Your task to perform on an android device: turn on the 24-hour format for clock Image 0: 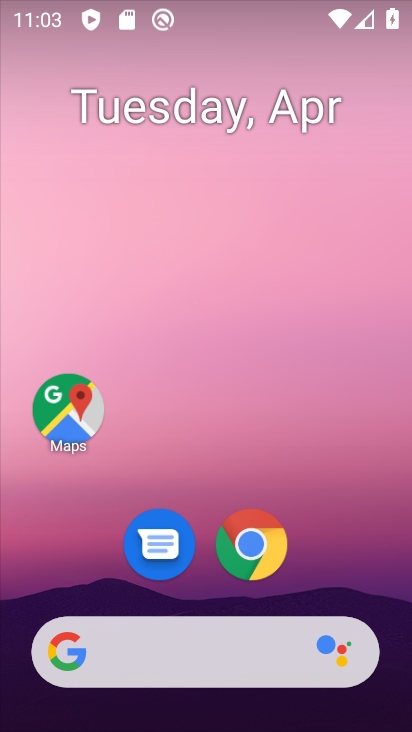
Step 0: drag from (322, 567) to (408, 234)
Your task to perform on an android device: turn on the 24-hour format for clock Image 1: 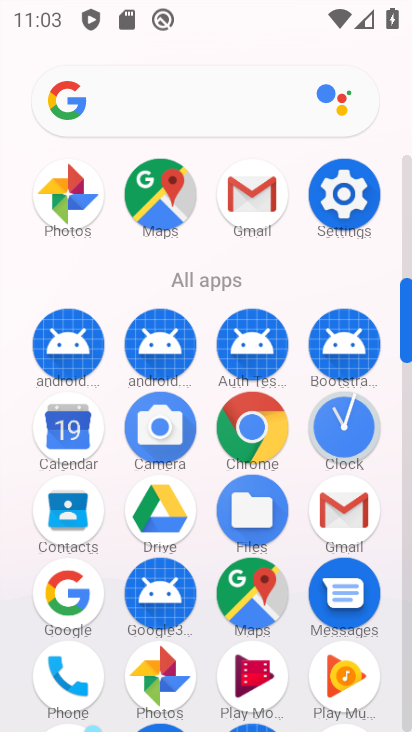
Step 1: click (358, 435)
Your task to perform on an android device: turn on the 24-hour format for clock Image 2: 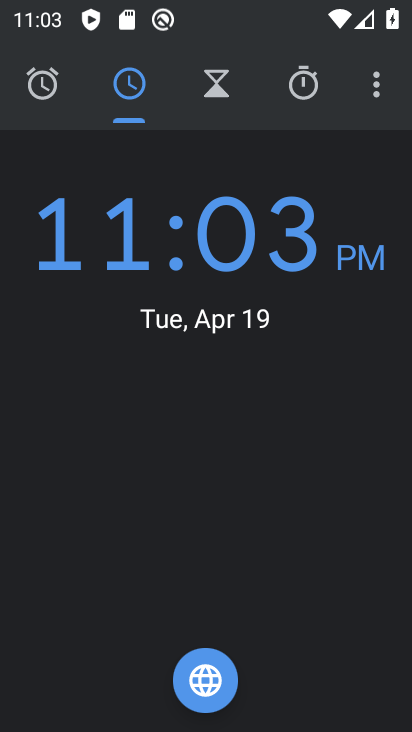
Step 2: click (377, 89)
Your task to perform on an android device: turn on the 24-hour format for clock Image 3: 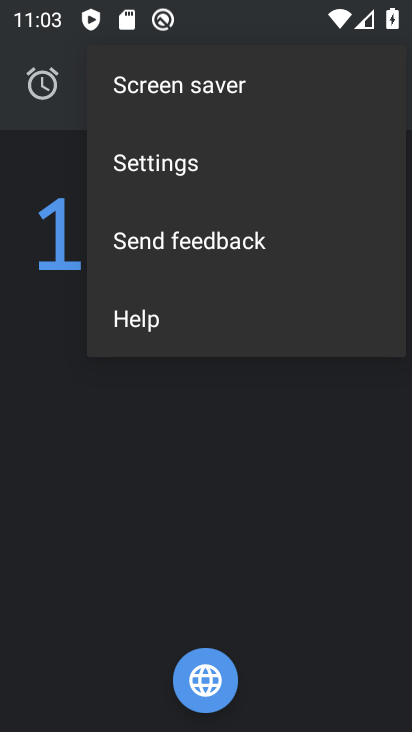
Step 3: click (294, 171)
Your task to perform on an android device: turn on the 24-hour format for clock Image 4: 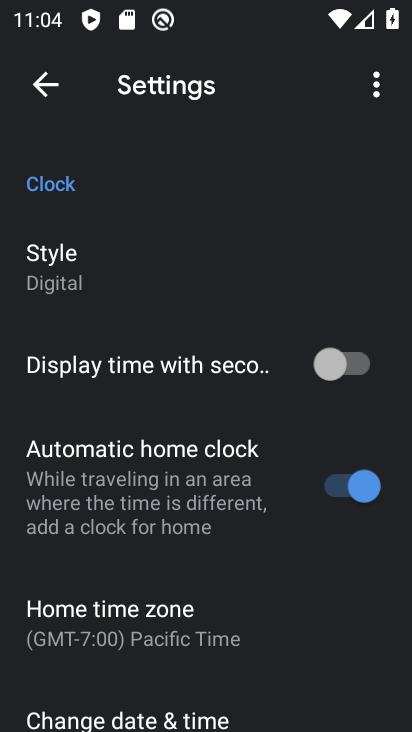
Step 4: drag from (162, 645) to (183, 366)
Your task to perform on an android device: turn on the 24-hour format for clock Image 5: 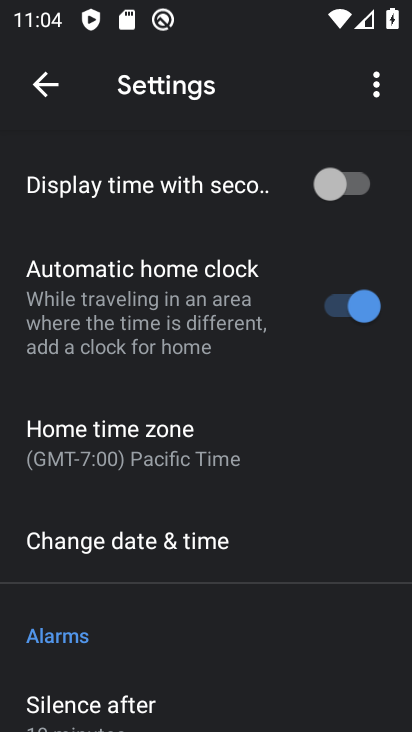
Step 5: click (174, 543)
Your task to perform on an android device: turn on the 24-hour format for clock Image 6: 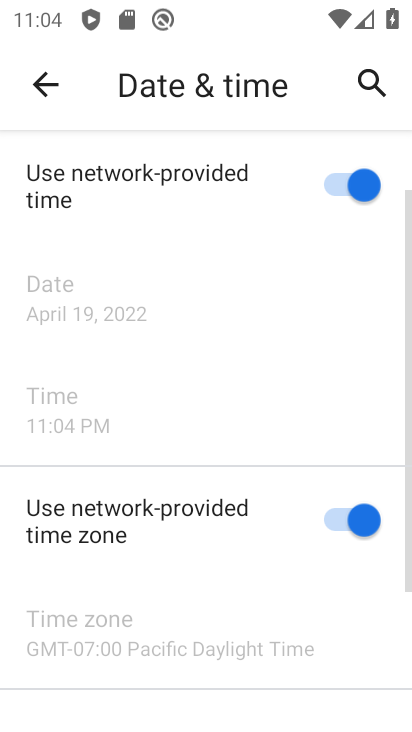
Step 6: drag from (171, 608) to (179, 392)
Your task to perform on an android device: turn on the 24-hour format for clock Image 7: 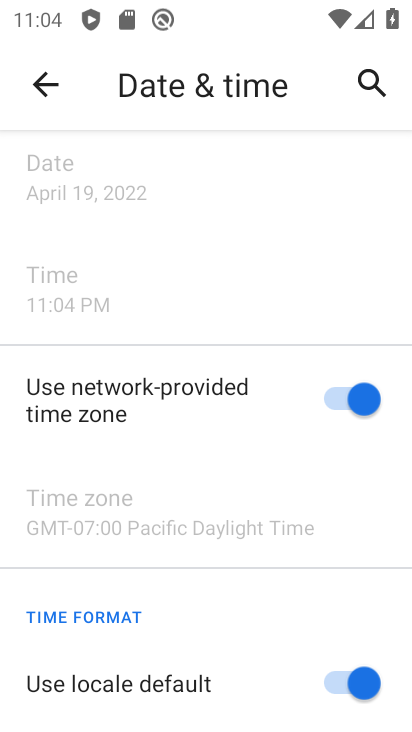
Step 7: drag from (201, 578) to (245, 364)
Your task to perform on an android device: turn on the 24-hour format for clock Image 8: 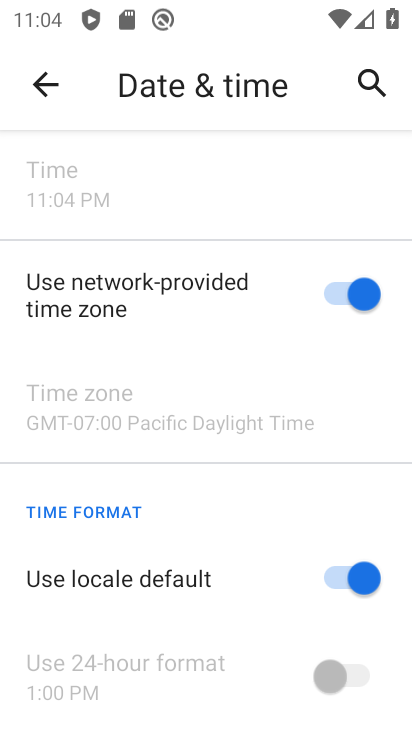
Step 8: click (337, 583)
Your task to perform on an android device: turn on the 24-hour format for clock Image 9: 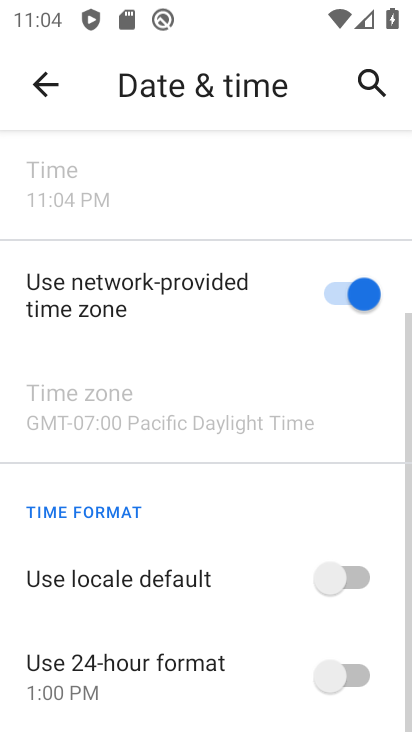
Step 9: click (350, 678)
Your task to perform on an android device: turn on the 24-hour format for clock Image 10: 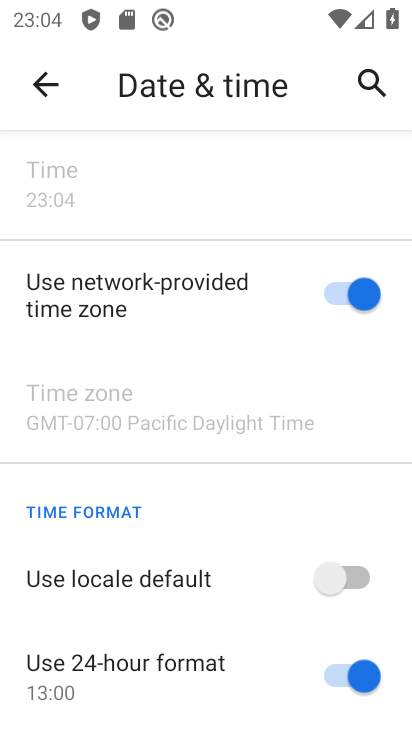
Step 10: task complete